Your task to perform on an android device: choose inbox layout in the gmail app Image 0: 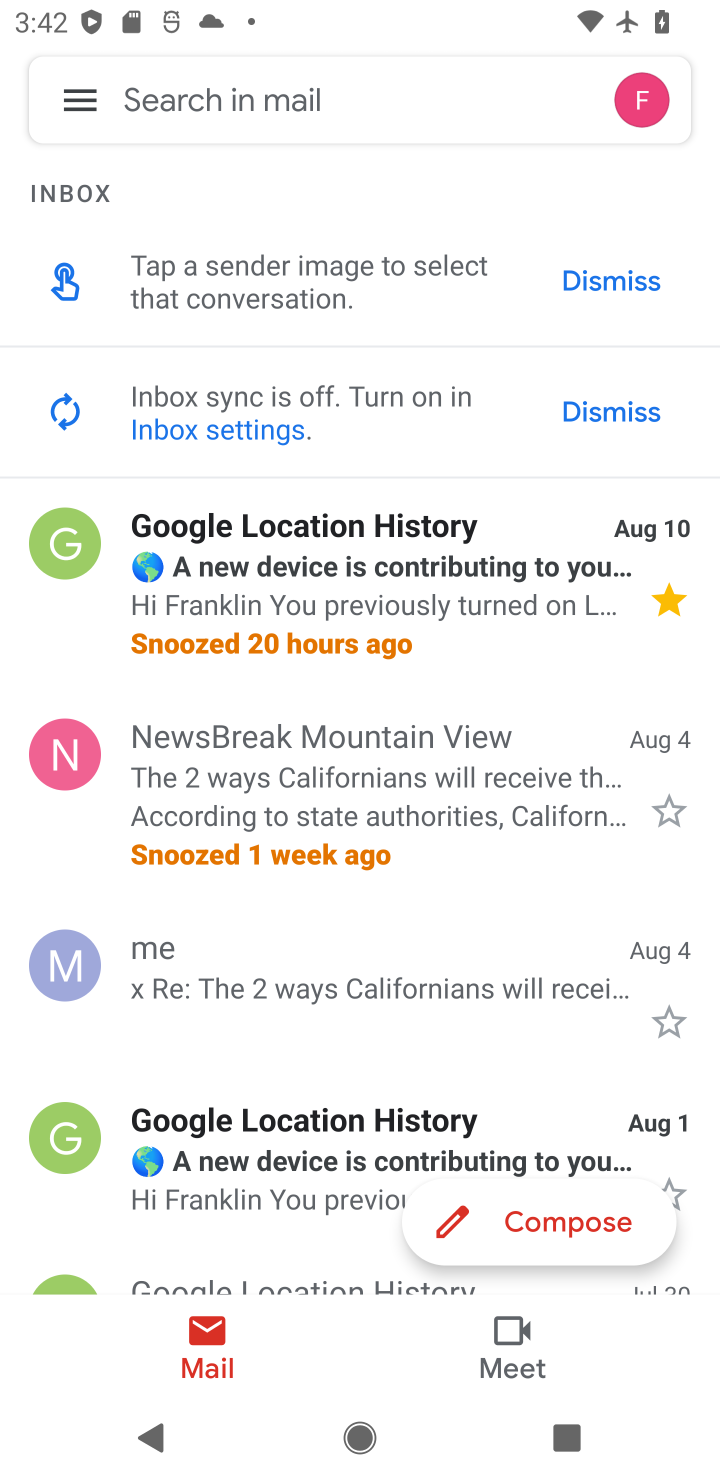
Step 0: click (82, 94)
Your task to perform on an android device: choose inbox layout in the gmail app Image 1: 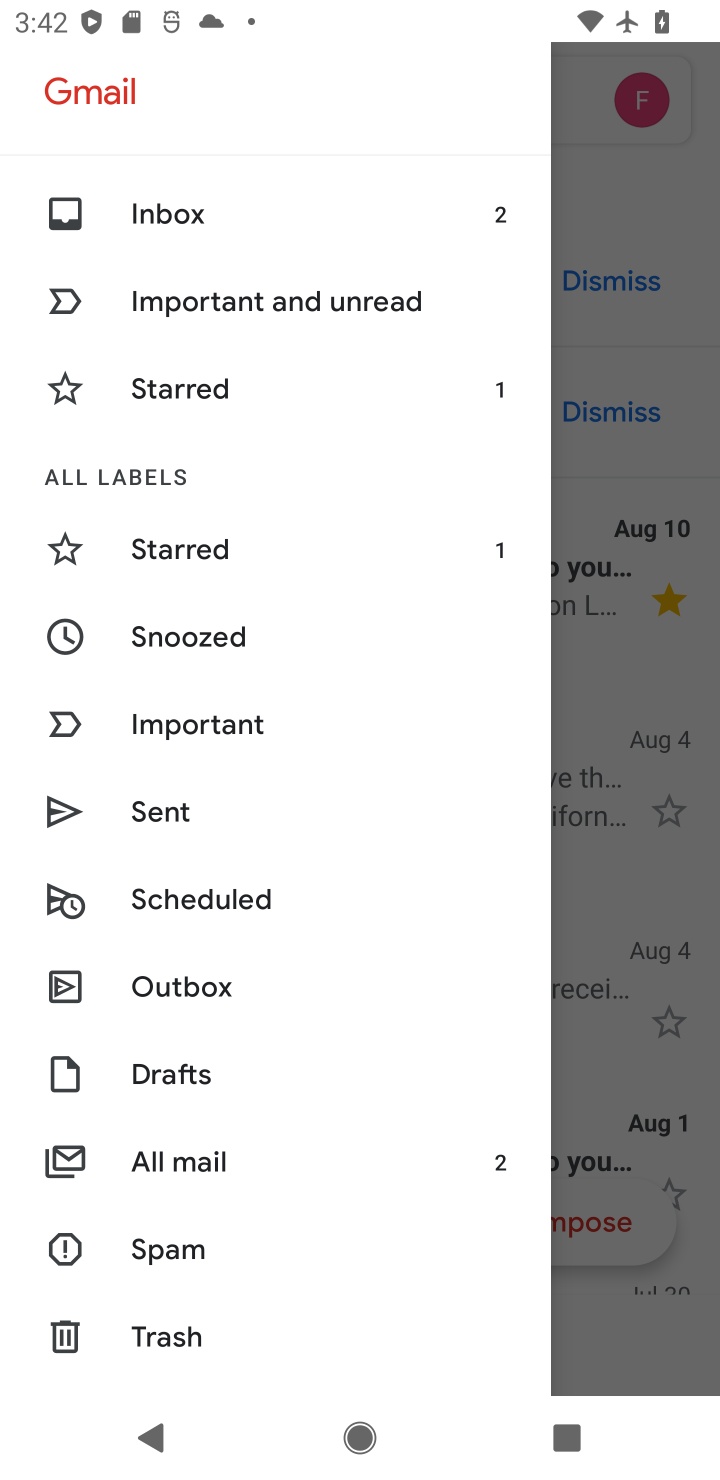
Step 1: drag from (181, 1281) to (268, 374)
Your task to perform on an android device: choose inbox layout in the gmail app Image 2: 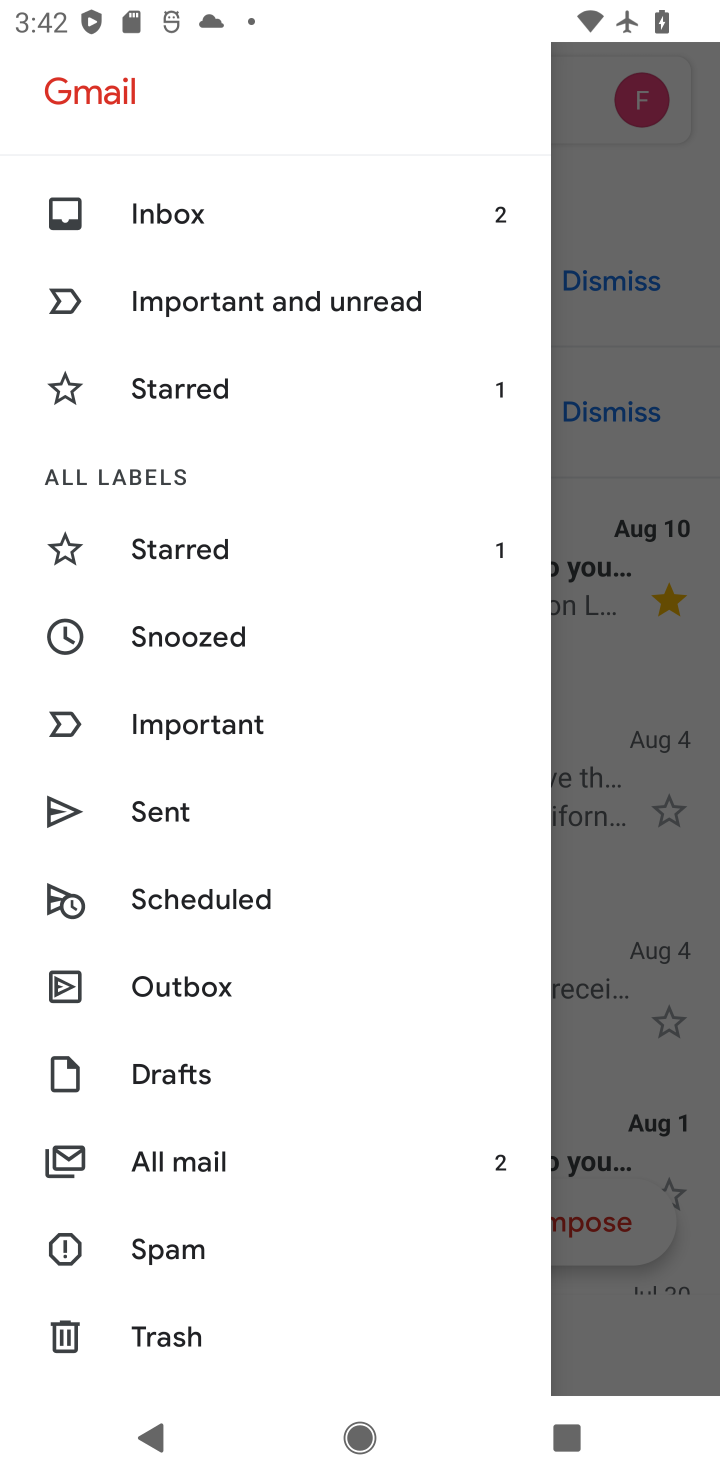
Step 2: drag from (220, 1306) to (429, 298)
Your task to perform on an android device: choose inbox layout in the gmail app Image 3: 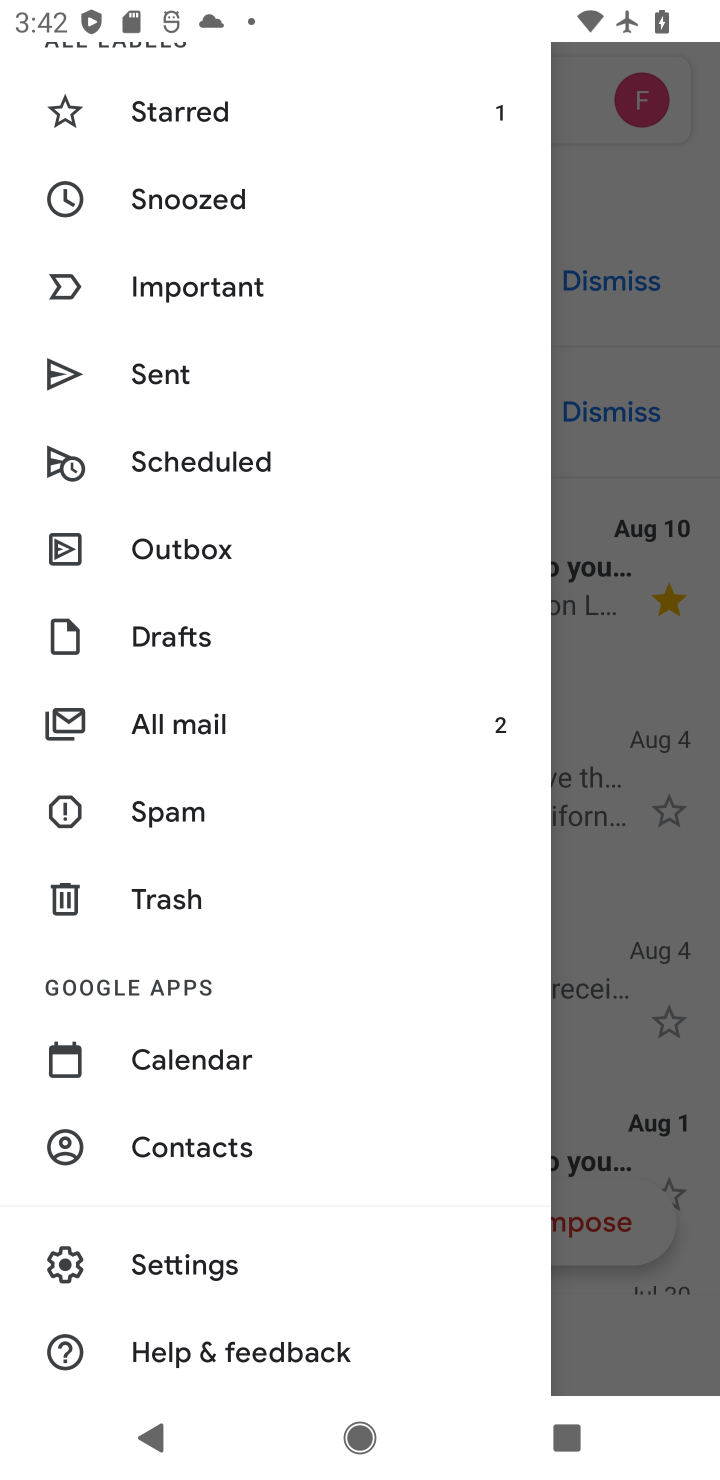
Step 3: click (160, 1272)
Your task to perform on an android device: choose inbox layout in the gmail app Image 4: 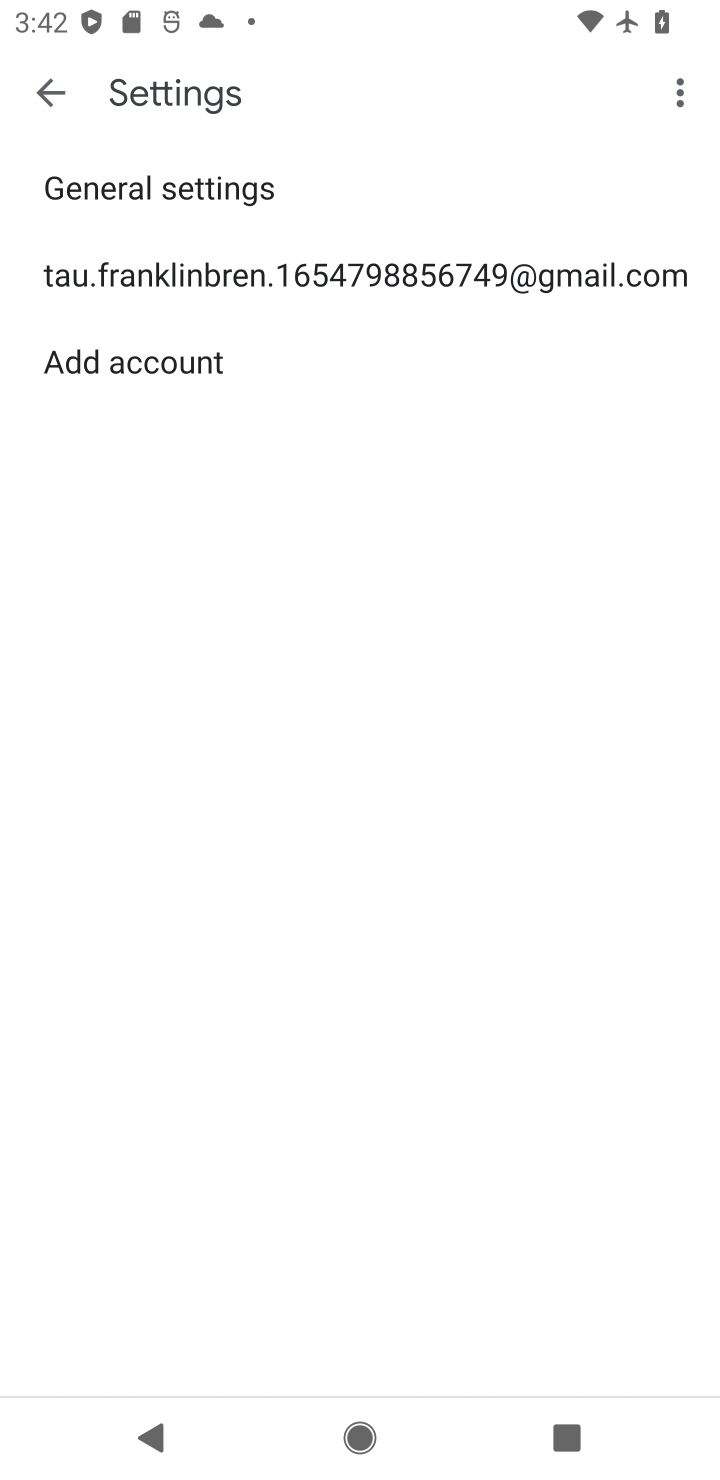
Step 4: click (330, 262)
Your task to perform on an android device: choose inbox layout in the gmail app Image 5: 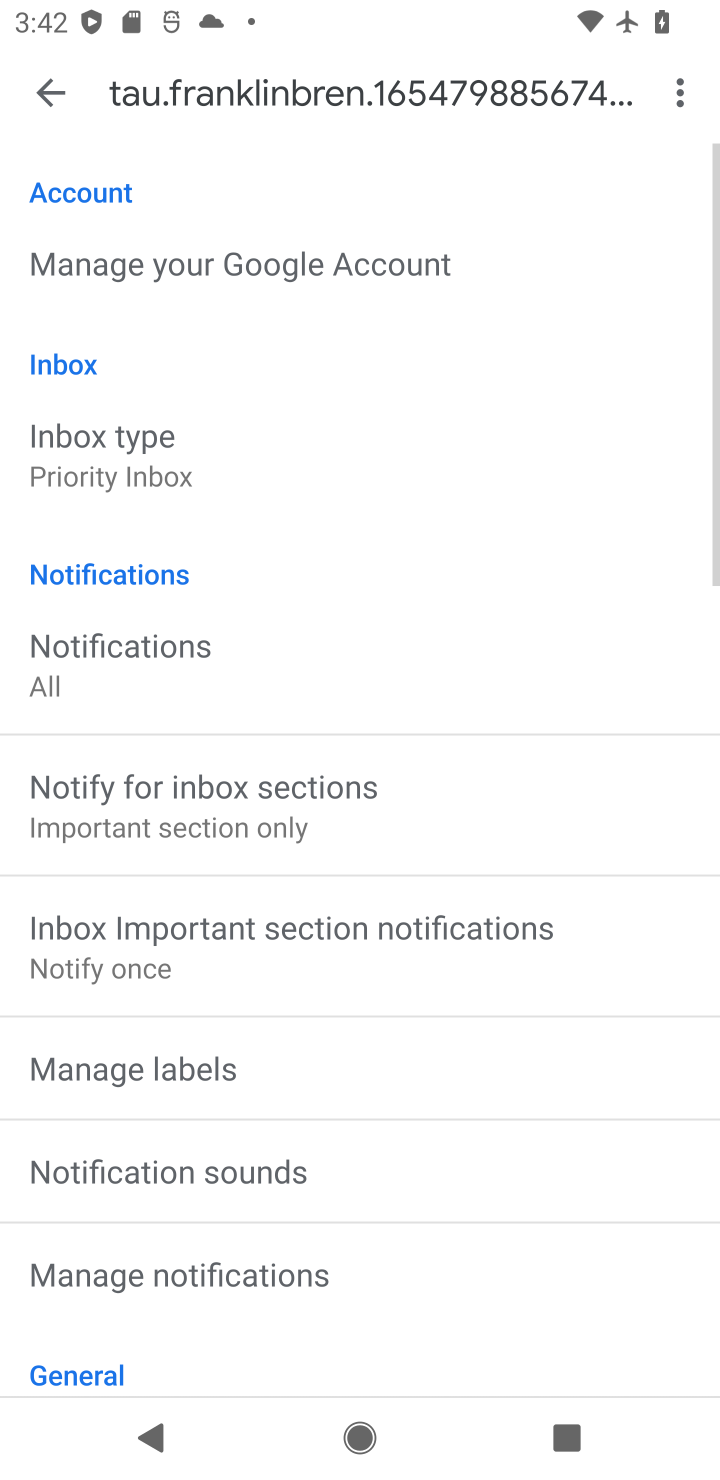
Step 5: click (121, 527)
Your task to perform on an android device: choose inbox layout in the gmail app Image 6: 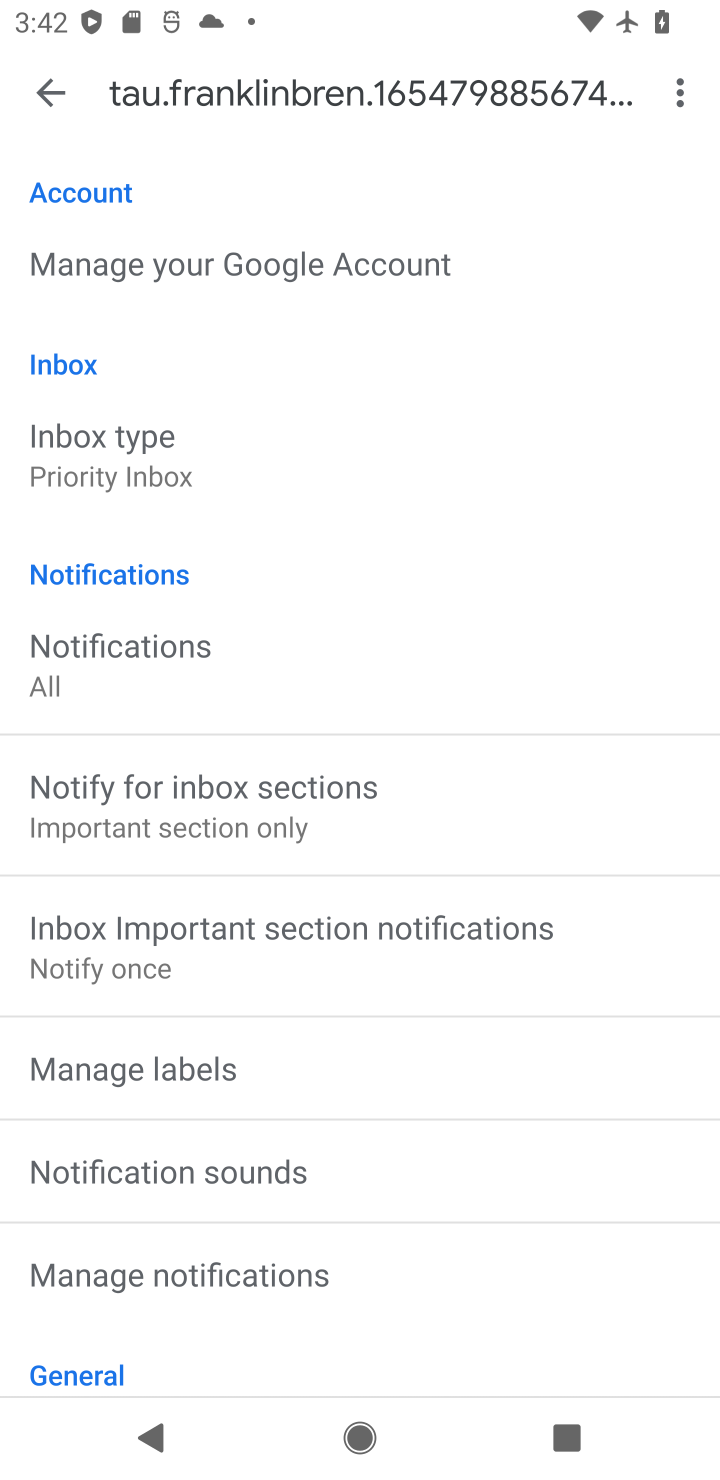
Step 6: click (116, 416)
Your task to perform on an android device: choose inbox layout in the gmail app Image 7: 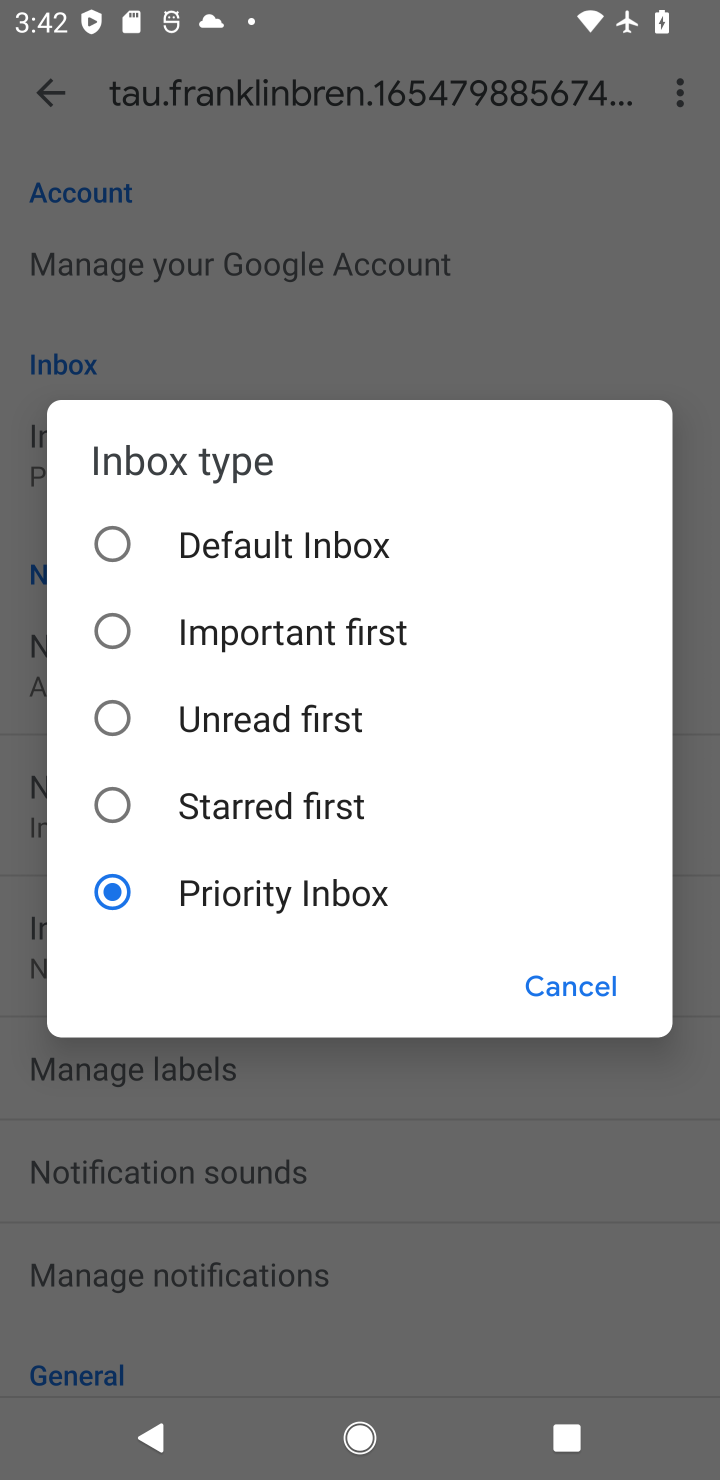
Step 7: click (156, 688)
Your task to perform on an android device: choose inbox layout in the gmail app Image 8: 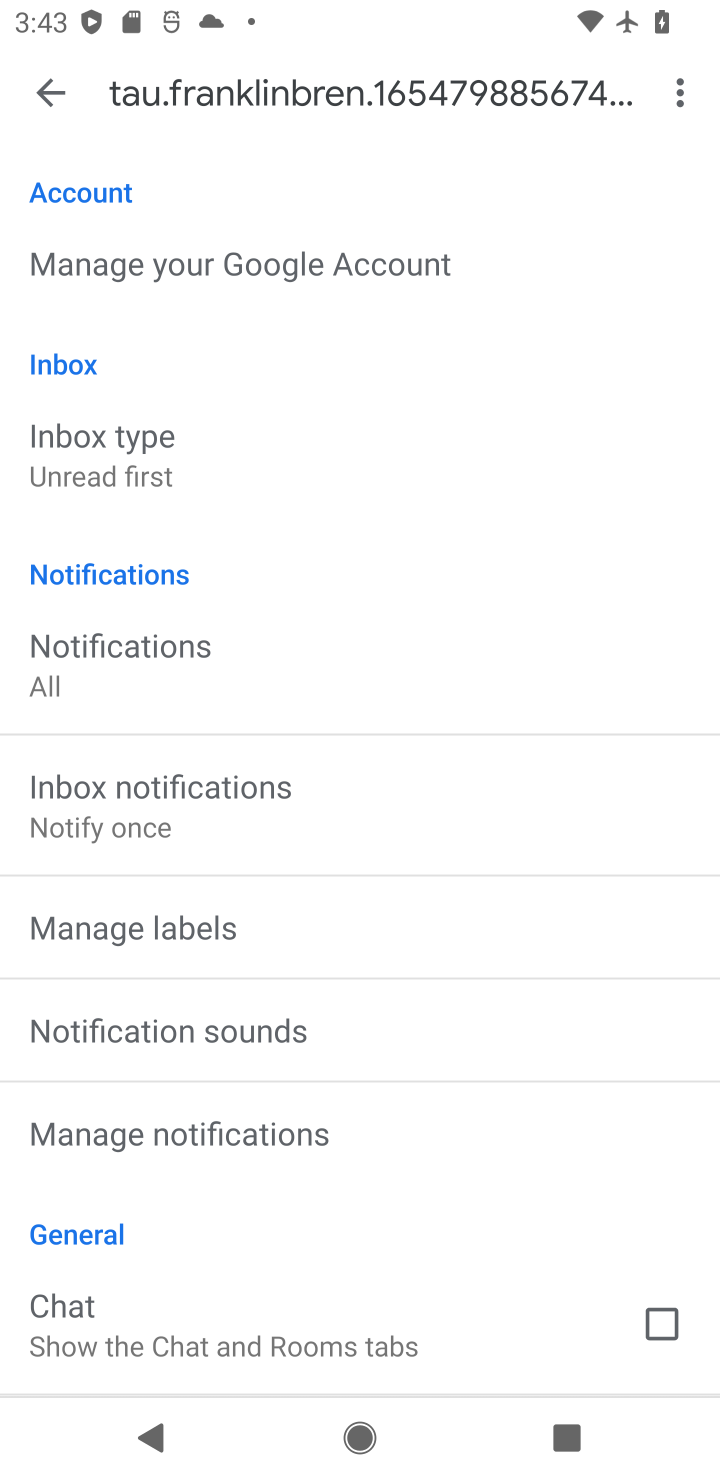
Step 8: task complete